Your task to perform on an android device: Open the calendar app, open the side menu, and click the "Day" option Image 0: 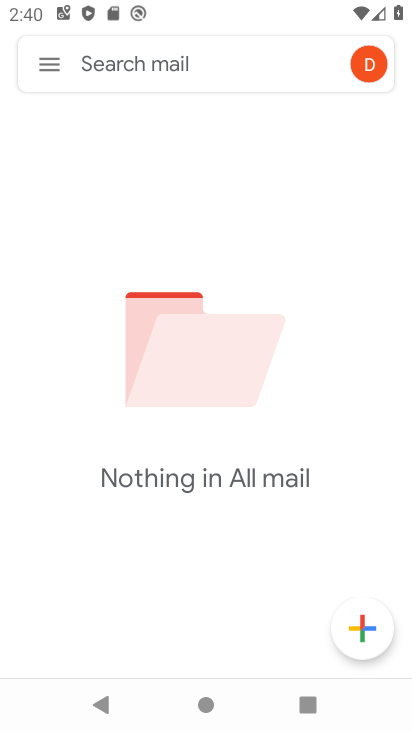
Step 0: press home button
Your task to perform on an android device: Open the calendar app, open the side menu, and click the "Day" option Image 1: 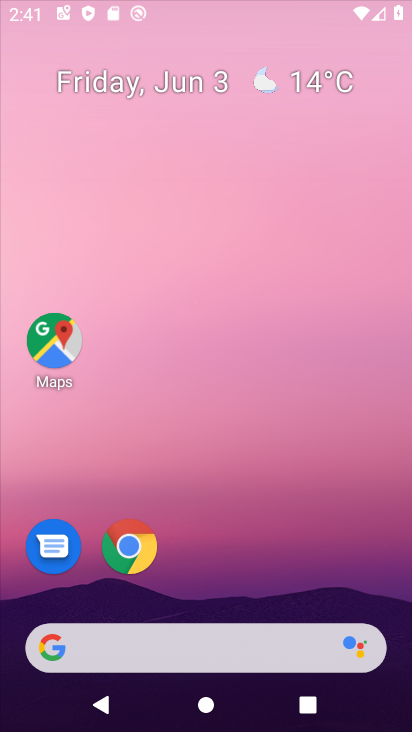
Step 1: drag from (266, 564) to (297, 75)
Your task to perform on an android device: Open the calendar app, open the side menu, and click the "Day" option Image 2: 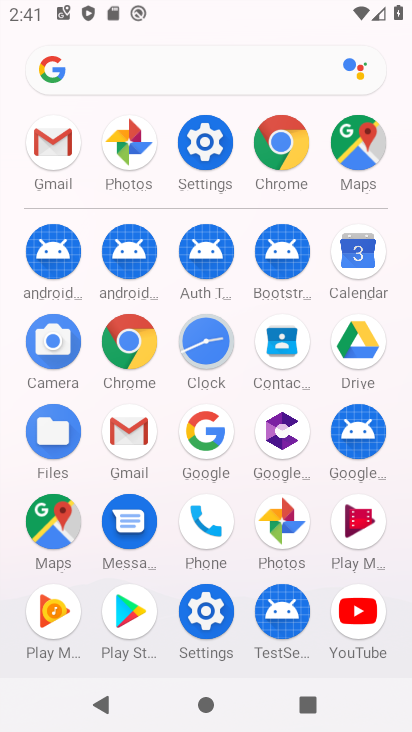
Step 2: click (383, 282)
Your task to perform on an android device: Open the calendar app, open the side menu, and click the "Day" option Image 3: 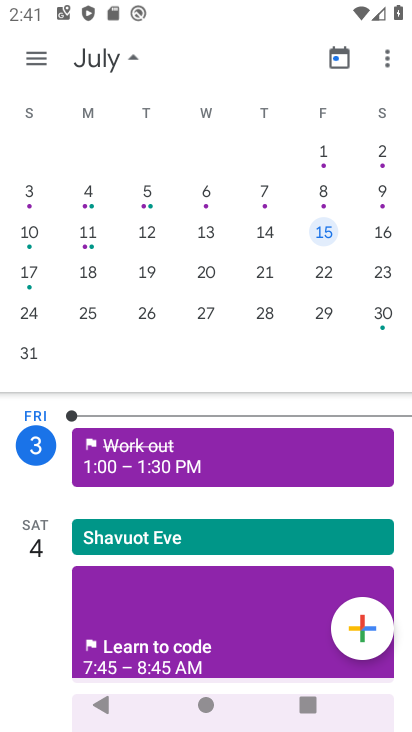
Step 3: click (27, 57)
Your task to perform on an android device: Open the calendar app, open the side menu, and click the "Day" option Image 4: 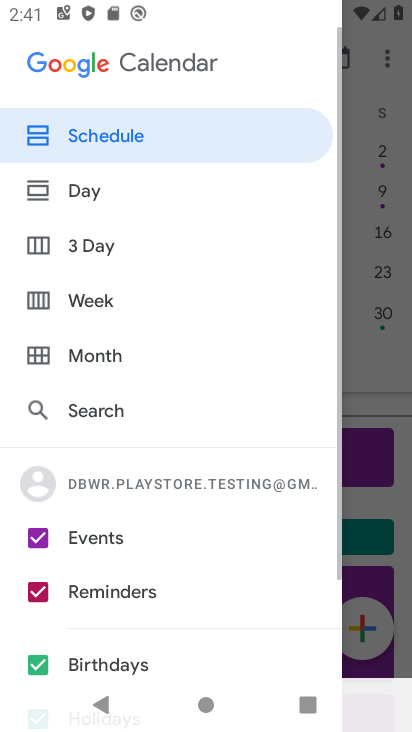
Step 4: click (66, 194)
Your task to perform on an android device: Open the calendar app, open the side menu, and click the "Day" option Image 5: 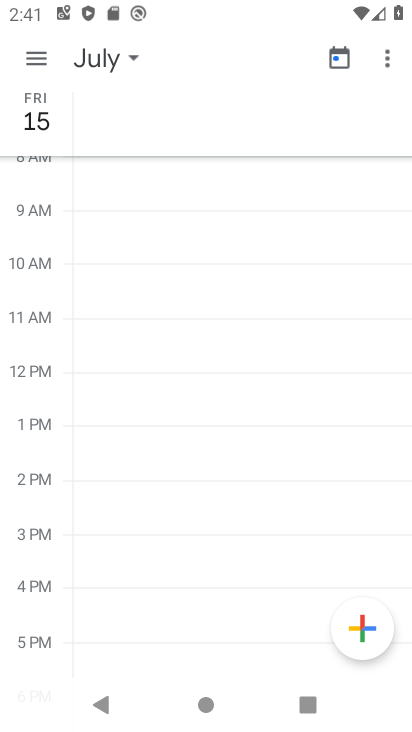
Step 5: task complete